Your task to perform on an android device: turn pop-ups off in chrome Image 0: 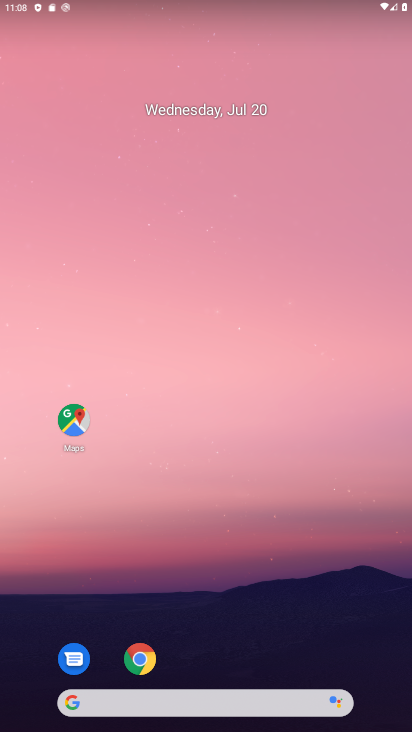
Step 0: click (144, 662)
Your task to perform on an android device: turn pop-ups off in chrome Image 1: 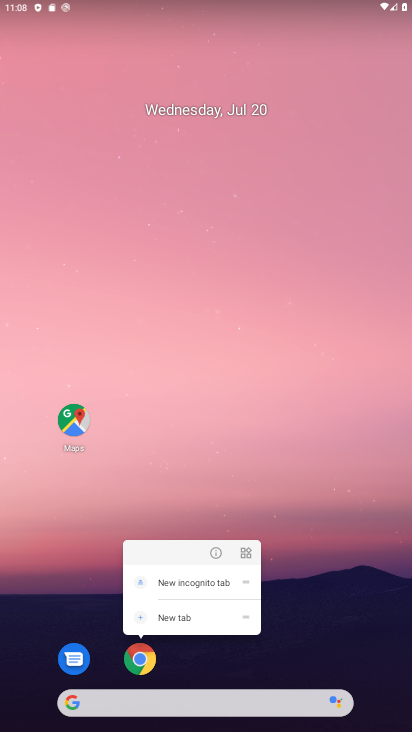
Step 1: click (144, 662)
Your task to perform on an android device: turn pop-ups off in chrome Image 2: 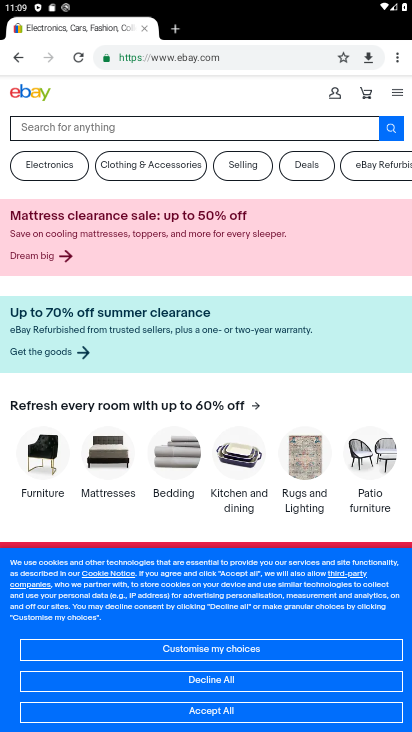
Step 2: click (399, 62)
Your task to perform on an android device: turn pop-ups off in chrome Image 3: 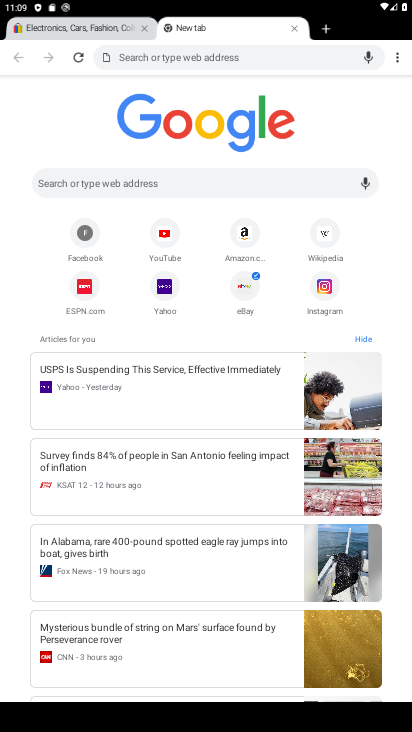
Step 3: click (404, 60)
Your task to perform on an android device: turn pop-ups off in chrome Image 4: 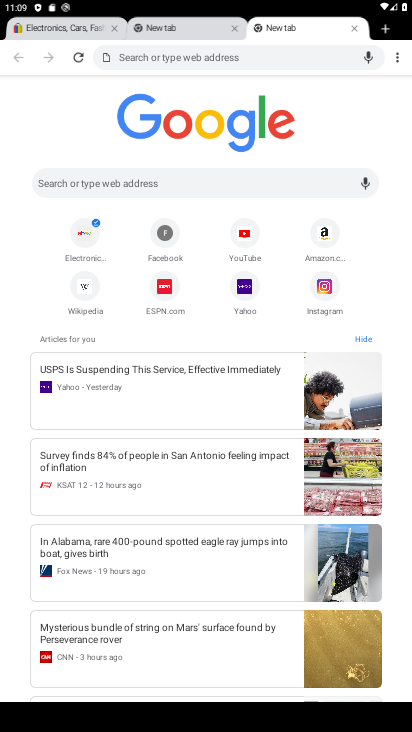
Step 4: click (403, 63)
Your task to perform on an android device: turn pop-ups off in chrome Image 5: 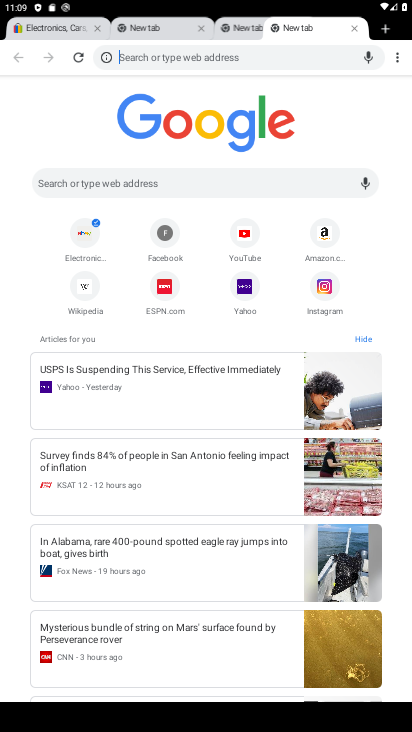
Step 5: click (357, 30)
Your task to perform on an android device: turn pop-ups off in chrome Image 6: 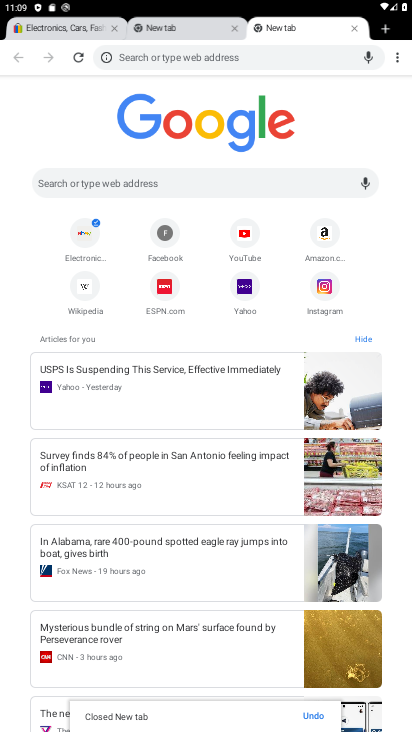
Step 6: click (105, 30)
Your task to perform on an android device: turn pop-ups off in chrome Image 7: 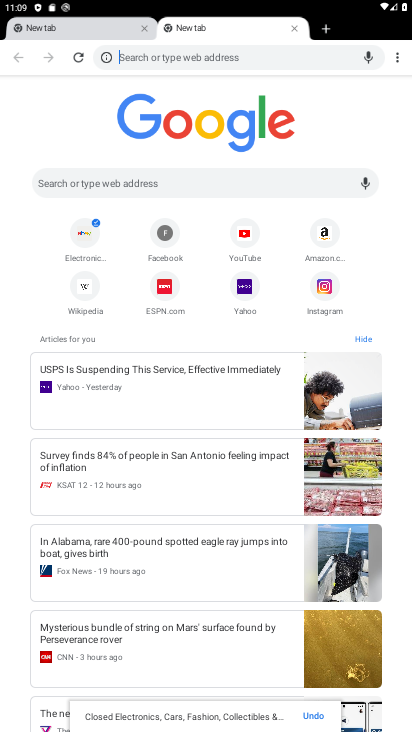
Step 7: click (147, 27)
Your task to perform on an android device: turn pop-ups off in chrome Image 8: 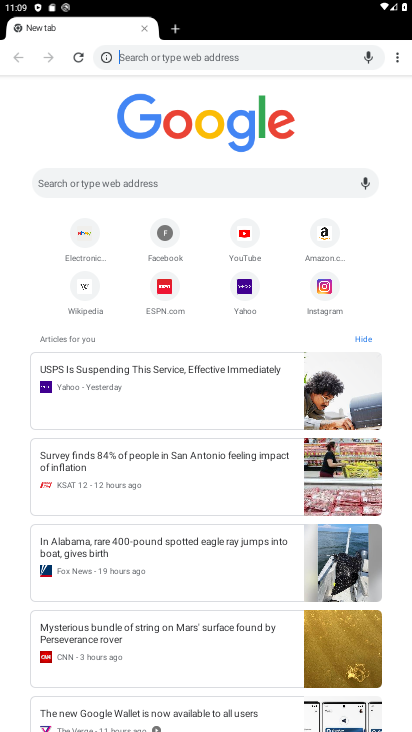
Step 8: click (398, 61)
Your task to perform on an android device: turn pop-ups off in chrome Image 9: 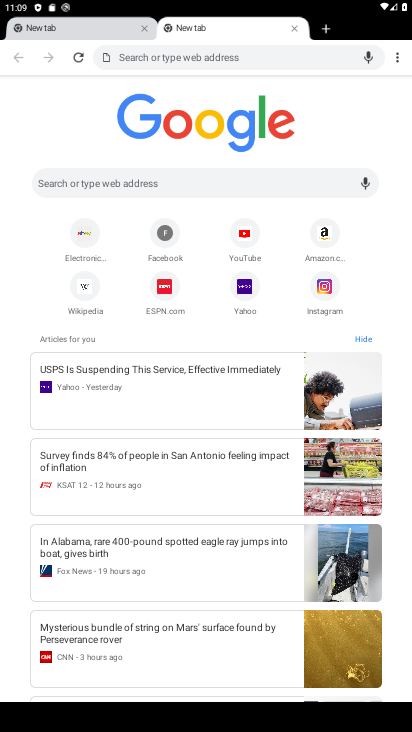
Step 9: click (290, 27)
Your task to perform on an android device: turn pop-ups off in chrome Image 10: 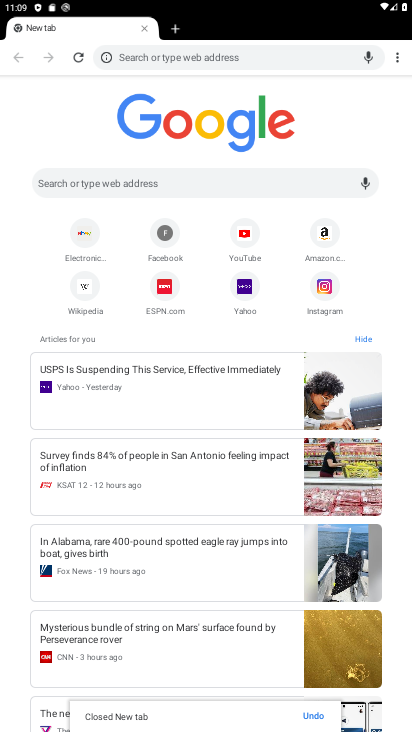
Step 10: click (397, 69)
Your task to perform on an android device: turn pop-ups off in chrome Image 11: 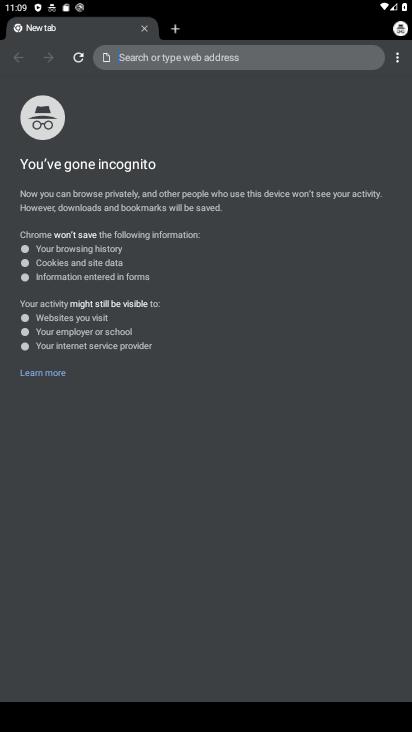
Step 11: click (148, 30)
Your task to perform on an android device: turn pop-ups off in chrome Image 12: 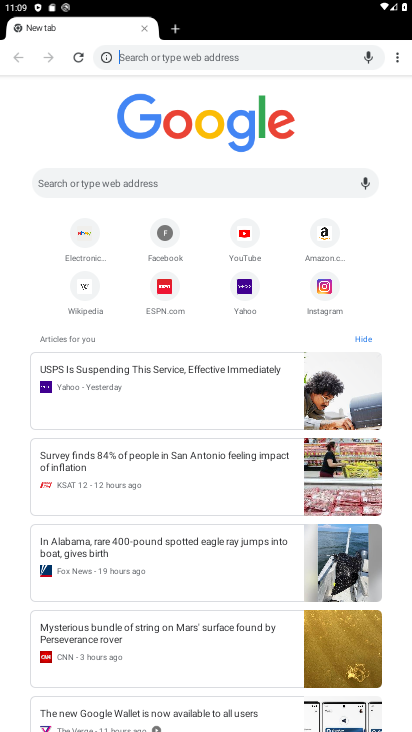
Step 12: click (395, 46)
Your task to perform on an android device: turn pop-ups off in chrome Image 13: 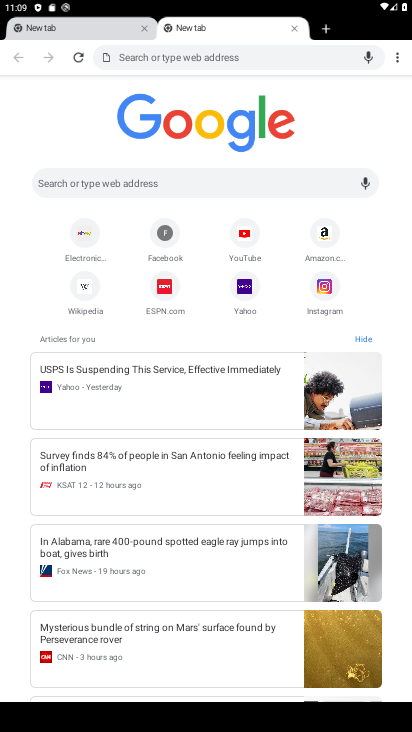
Step 13: click (285, 25)
Your task to perform on an android device: turn pop-ups off in chrome Image 14: 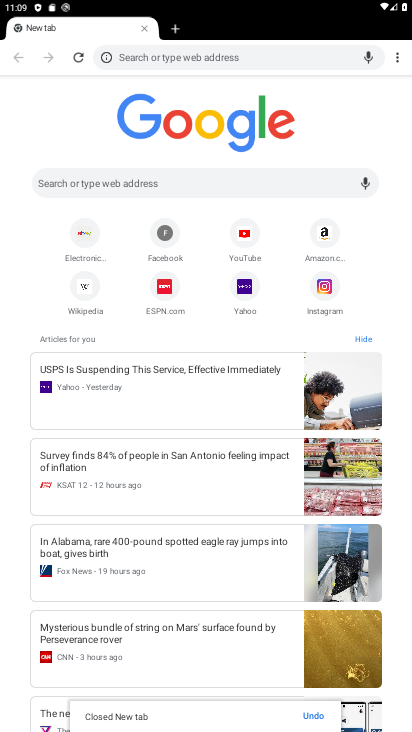
Step 14: click (395, 59)
Your task to perform on an android device: turn pop-ups off in chrome Image 15: 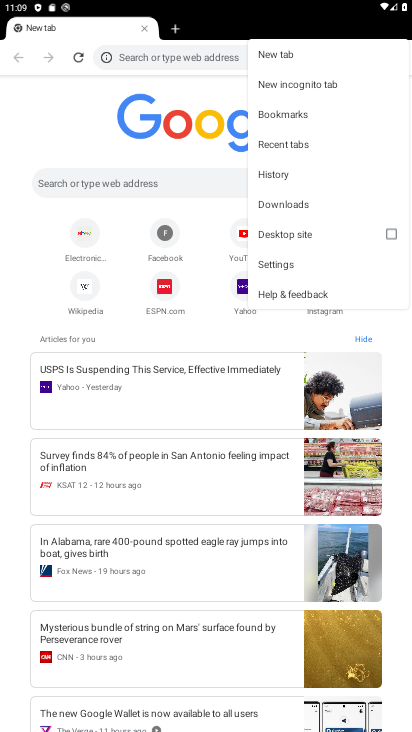
Step 15: click (285, 262)
Your task to perform on an android device: turn pop-ups off in chrome Image 16: 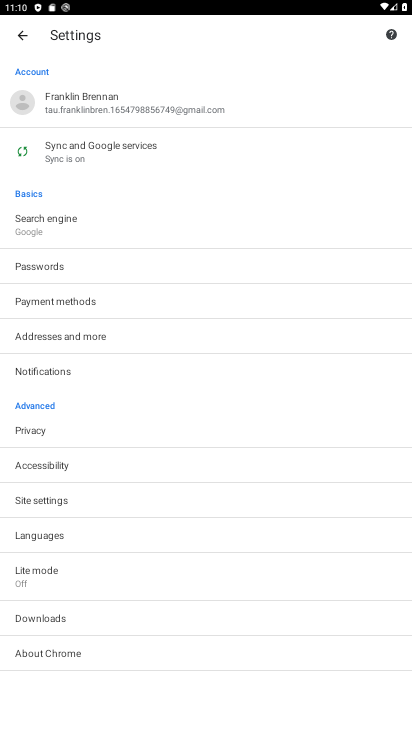
Step 16: click (57, 506)
Your task to perform on an android device: turn pop-ups off in chrome Image 17: 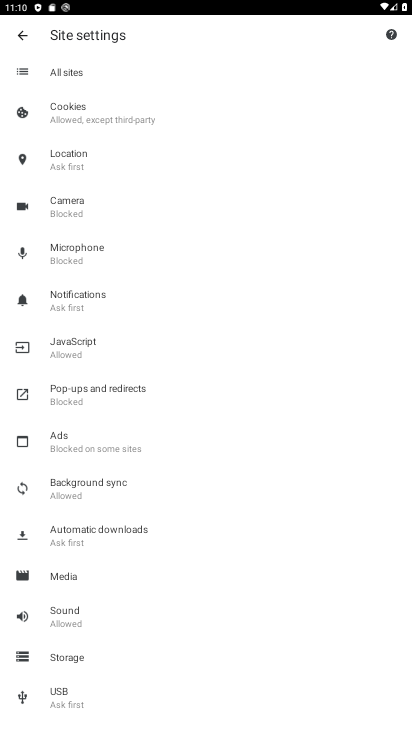
Step 17: click (88, 405)
Your task to perform on an android device: turn pop-ups off in chrome Image 18: 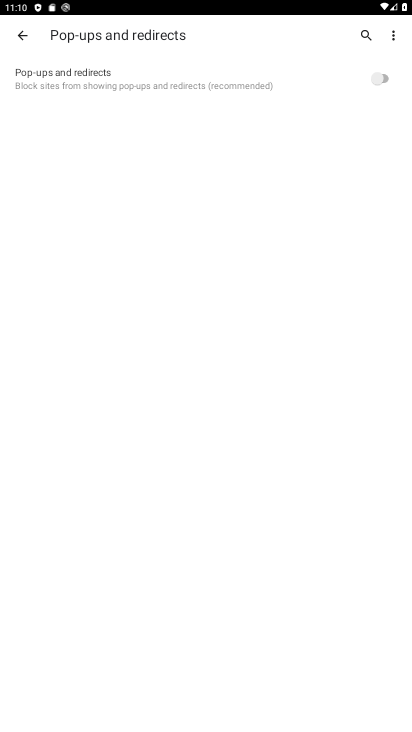
Step 18: task complete